Your task to perform on an android device: Set the phone to "Do not disturb". Image 0: 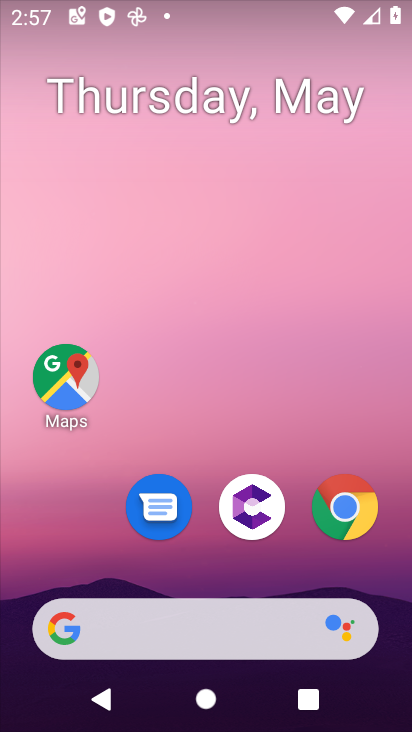
Step 0: drag from (217, 1) to (226, 427)
Your task to perform on an android device: Set the phone to "Do not disturb". Image 1: 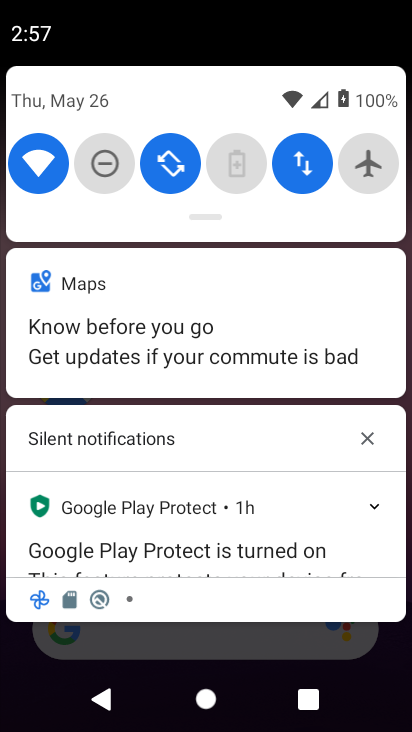
Step 1: drag from (221, 140) to (219, 556)
Your task to perform on an android device: Set the phone to "Do not disturb". Image 2: 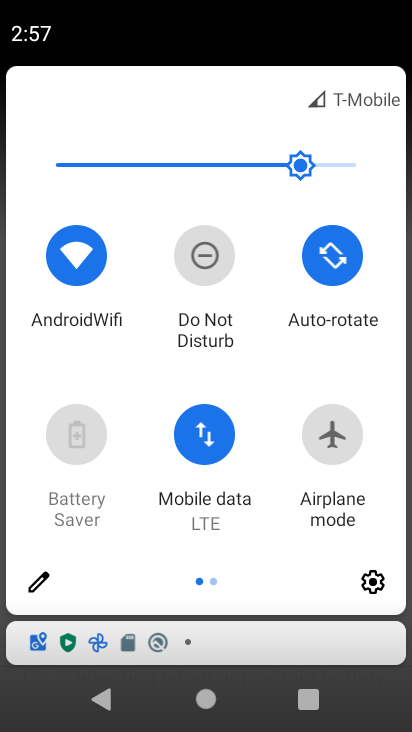
Step 2: click (209, 250)
Your task to perform on an android device: Set the phone to "Do not disturb". Image 3: 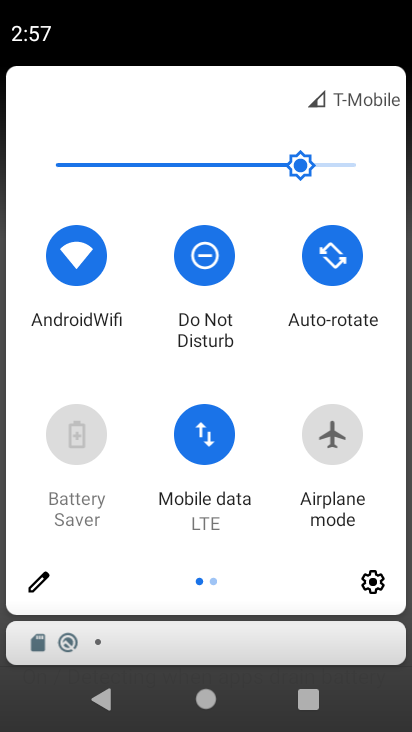
Step 3: task complete